Your task to perform on an android device: Go to sound settings Image 0: 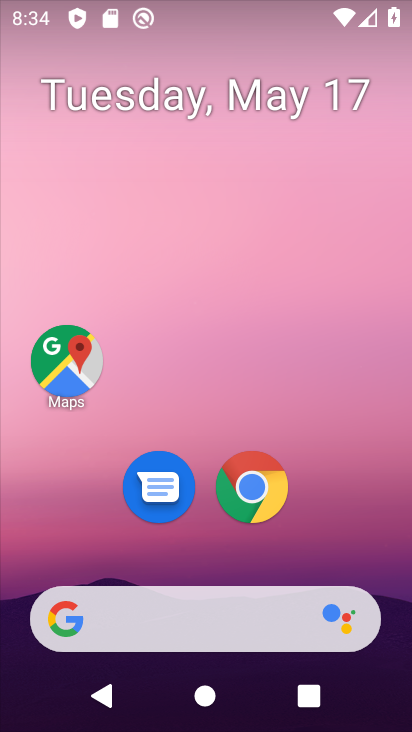
Step 0: drag from (240, 633) to (364, 100)
Your task to perform on an android device: Go to sound settings Image 1: 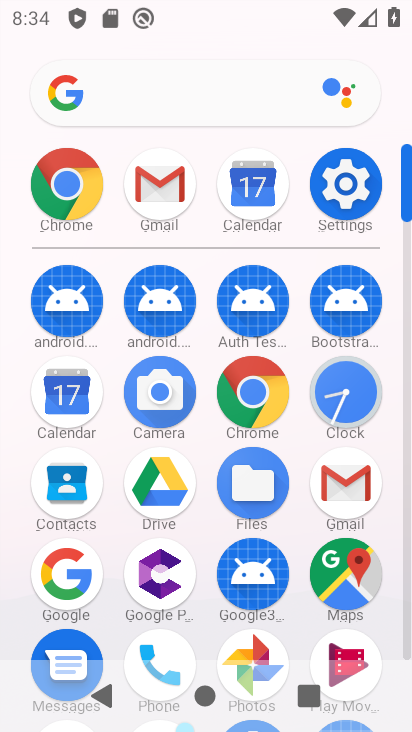
Step 1: click (342, 193)
Your task to perform on an android device: Go to sound settings Image 2: 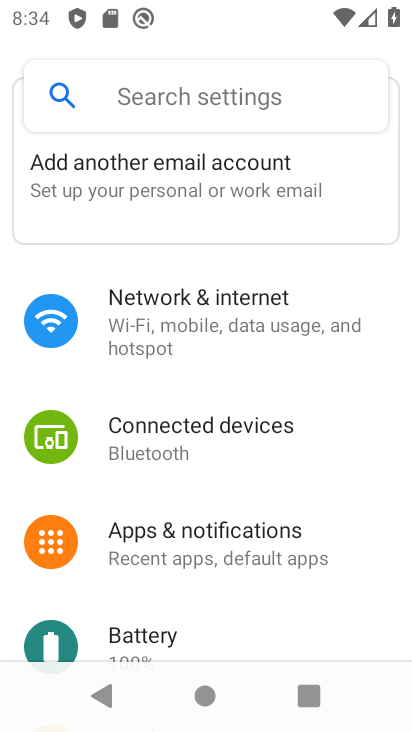
Step 2: click (242, 85)
Your task to perform on an android device: Go to sound settings Image 3: 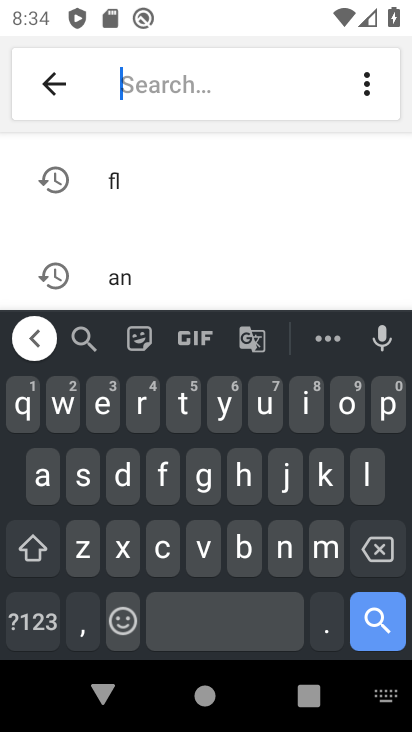
Step 3: click (90, 487)
Your task to perform on an android device: Go to sound settings Image 4: 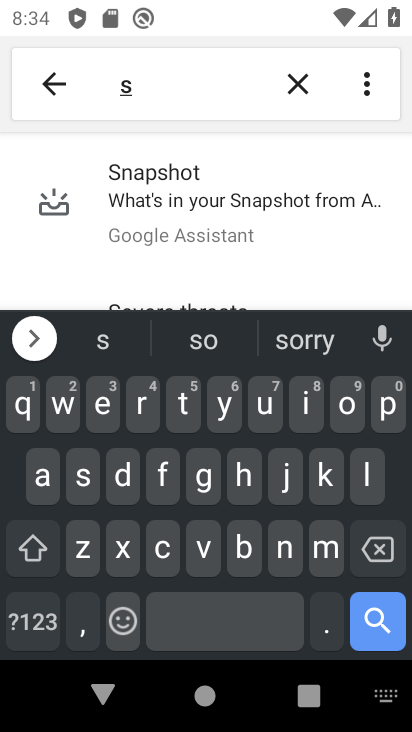
Step 4: click (347, 400)
Your task to perform on an android device: Go to sound settings Image 5: 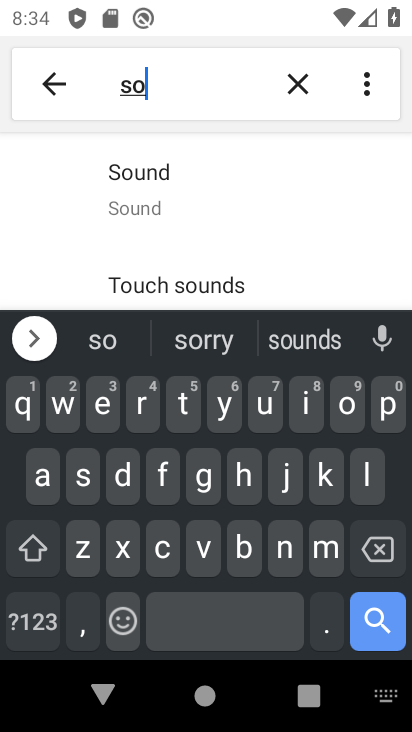
Step 5: click (182, 199)
Your task to perform on an android device: Go to sound settings Image 6: 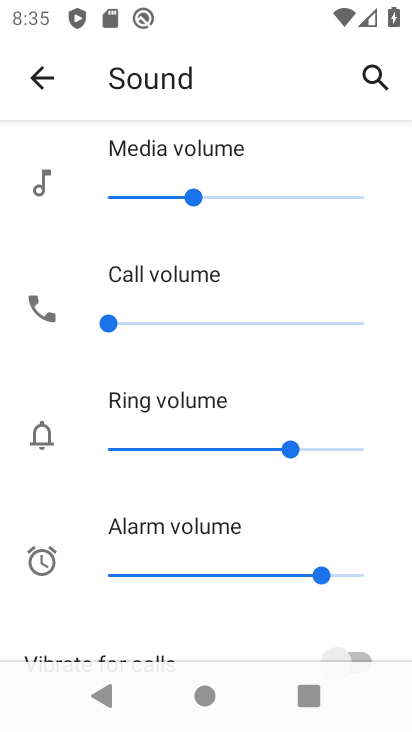
Step 6: task complete